Your task to perform on an android device: turn on airplane mode Image 0: 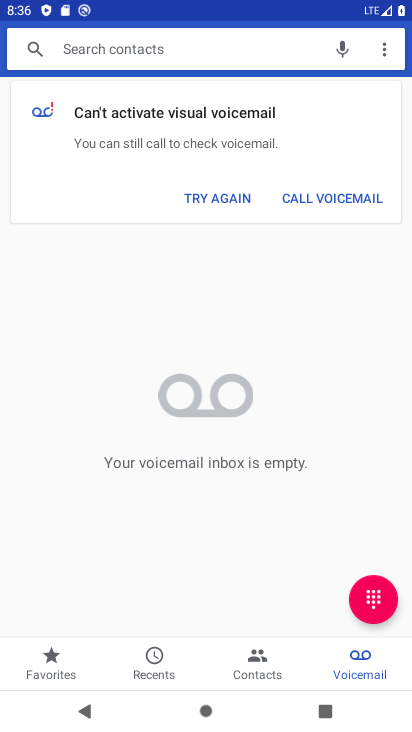
Step 0: press home button
Your task to perform on an android device: turn on airplane mode Image 1: 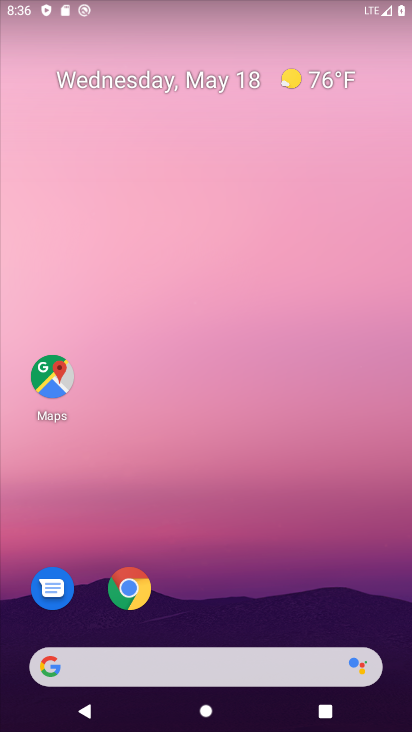
Step 1: drag from (316, 453) to (363, 0)
Your task to perform on an android device: turn on airplane mode Image 2: 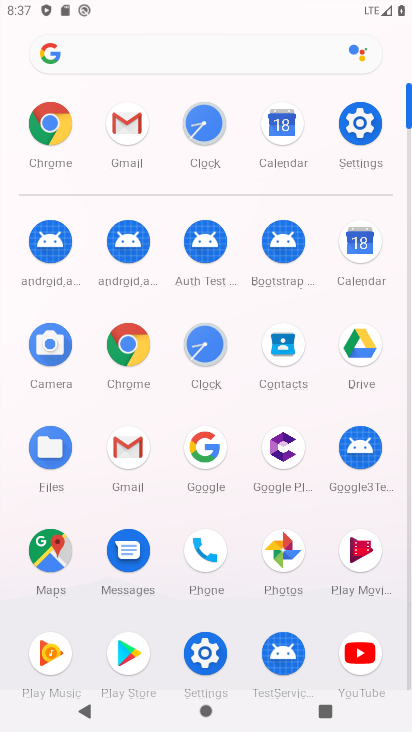
Step 2: click (361, 156)
Your task to perform on an android device: turn on airplane mode Image 3: 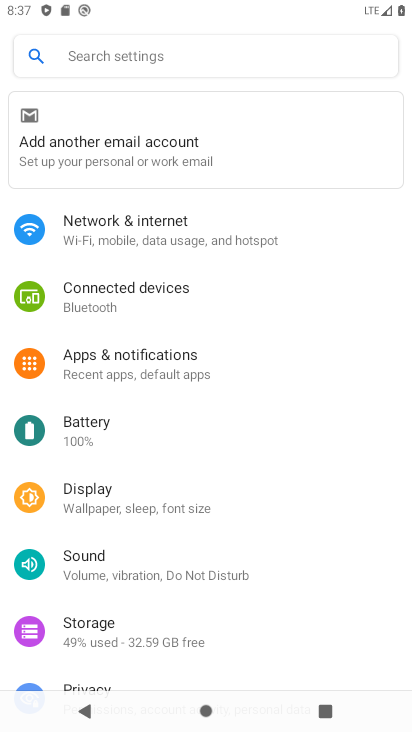
Step 3: click (153, 228)
Your task to perform on an android device: turn on airplane mode Image 4: 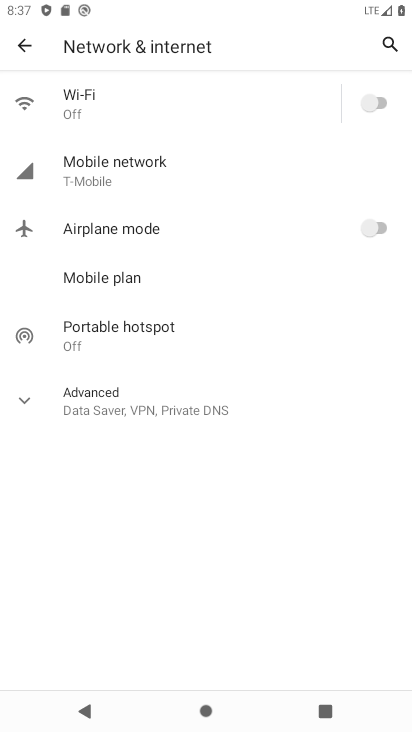
Step 4: click (374, 214)
Your task to perform on an android device: turn on airplane mode Image 5: 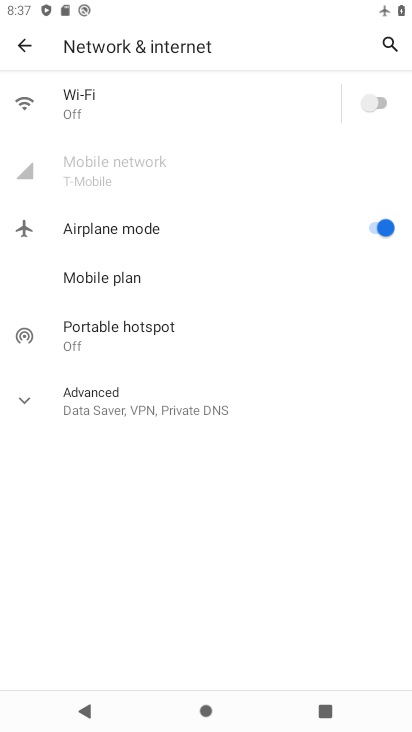
Step 5: task complete